Your task to perform on an android device: What's the weather? Image 0: 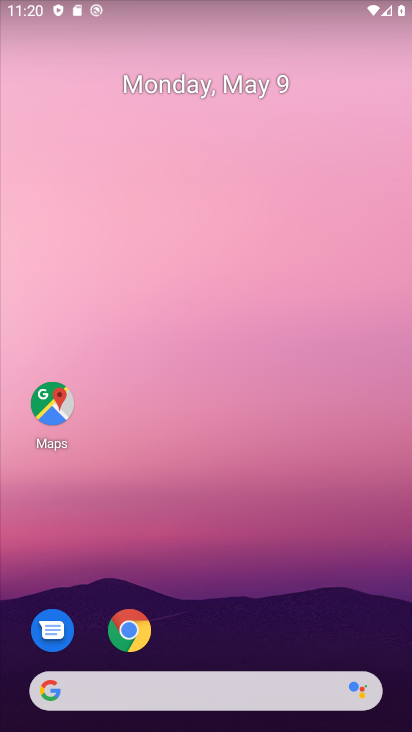
Step 0: drag from (268, 473) to (201, 4)
Your task to perform on an android device: What's the weather? Image 1: 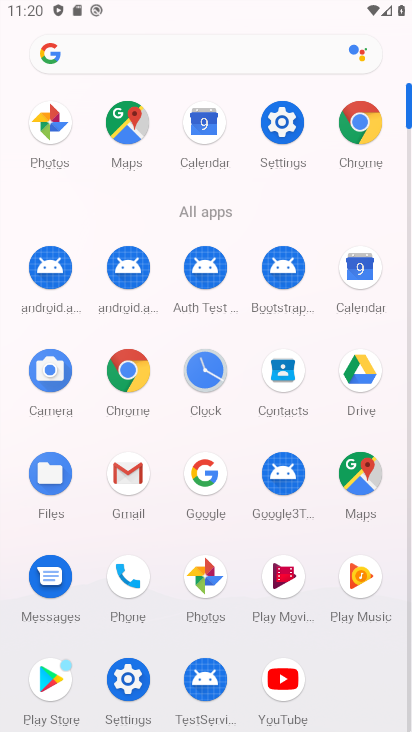
Step 1: drag from (14, 483) to (12, 124)
Your task to perform on an android device: What's the weather? Image 2: 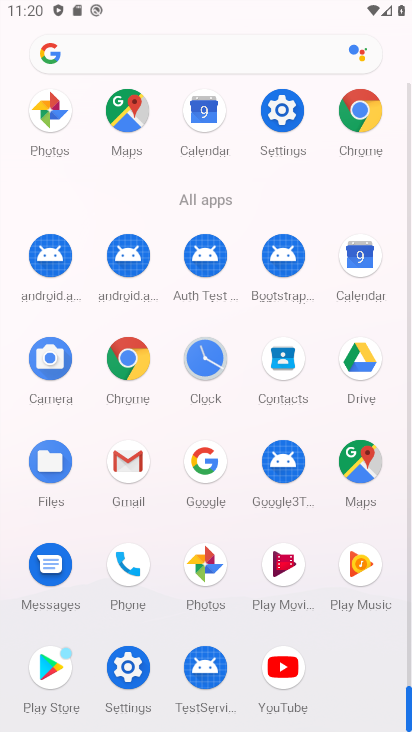
Step 2: click (126, 353)
Your task to perform on an android device: What's the weather? Image 3: 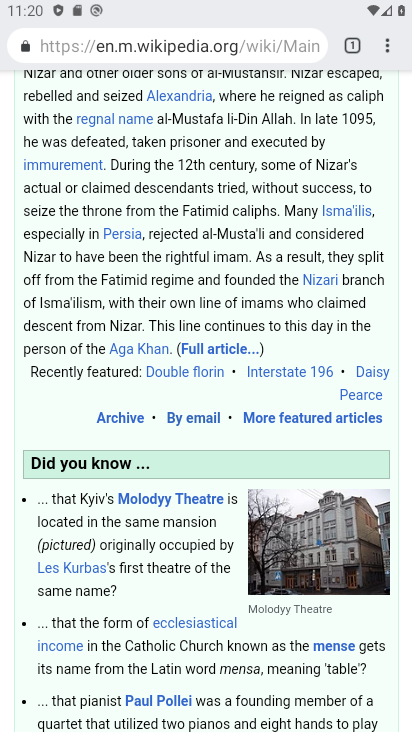
Step 3: click (193, 52)
Your task to perform on an android device: What's the weather? Image 4: 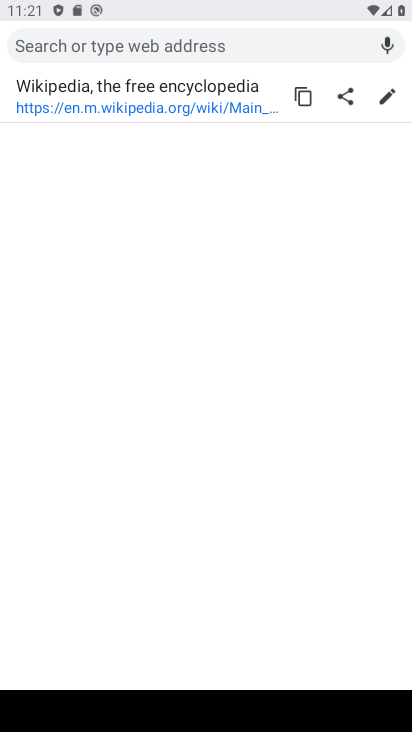
Step 4: type "What's the weather?"
Your task to perform on an android device: What's the weather? Image 5: 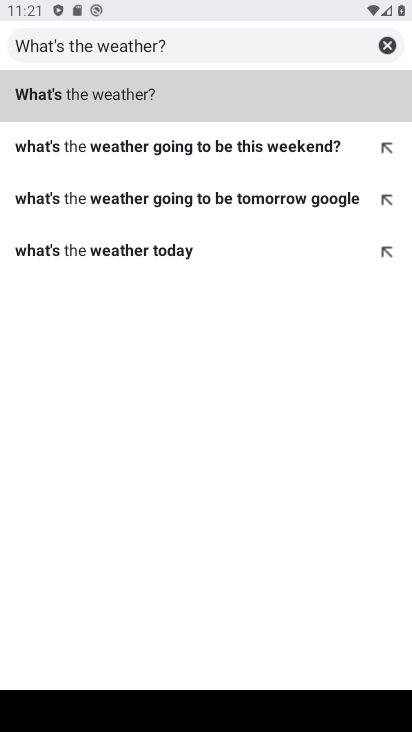
Step 5: click (136, 94)
Your task to perform on an android device: What's the weather? Image 6: 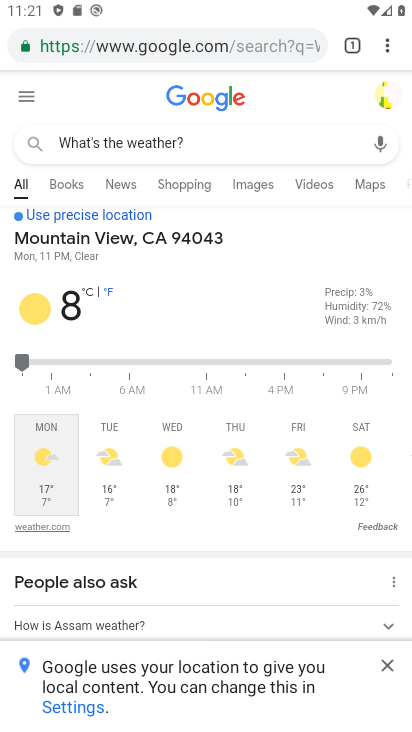
Step 6: task complete